Your task to perform on an android device: empty trash in google photos Image 0: 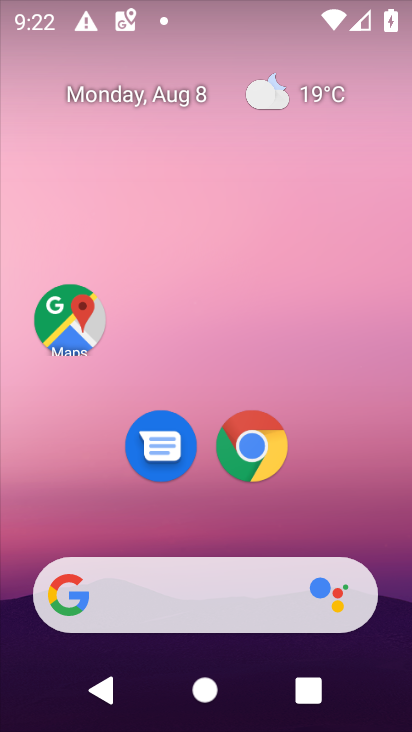
Step 0: drag from (397, 538) to (372, 78)
Your task to perform on an android device: empty trash in google photos Image 1: 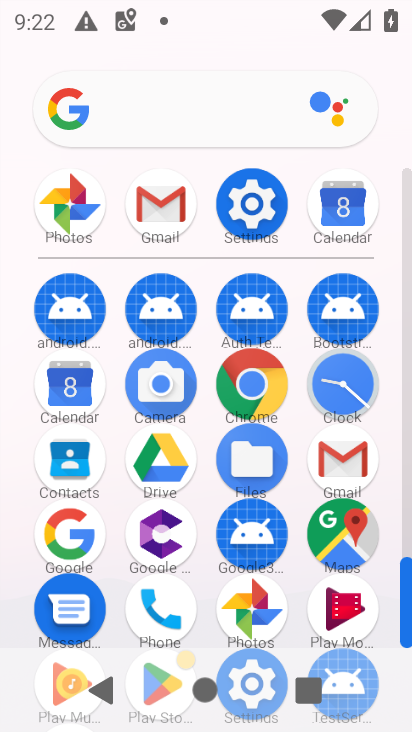
Step 1: click (254, 611)
Your task to perform on an android device: empty trash in google photos Image 2: 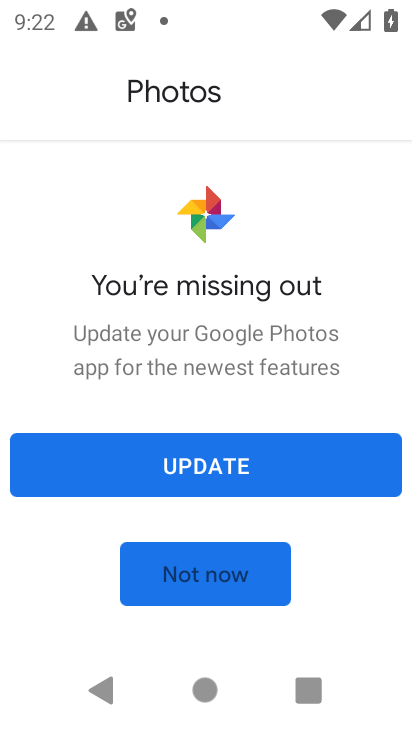
Step 2: click (203, 477)
Your task to perform on an android device: empty trash in google photos Image 3: 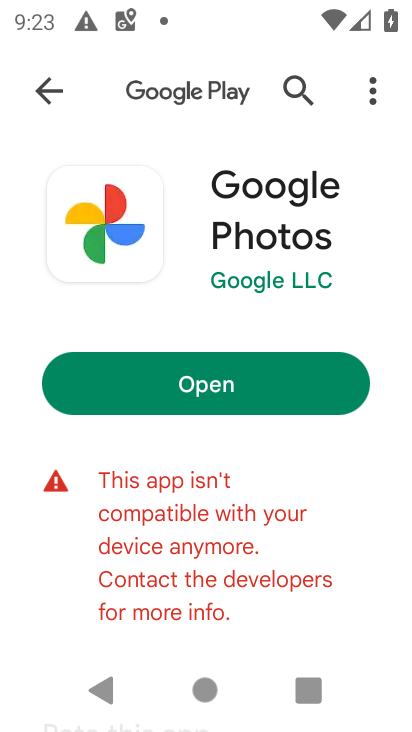
Step 3: press back button
Your task to perform on an android device: empty trash in google photos Image 4: 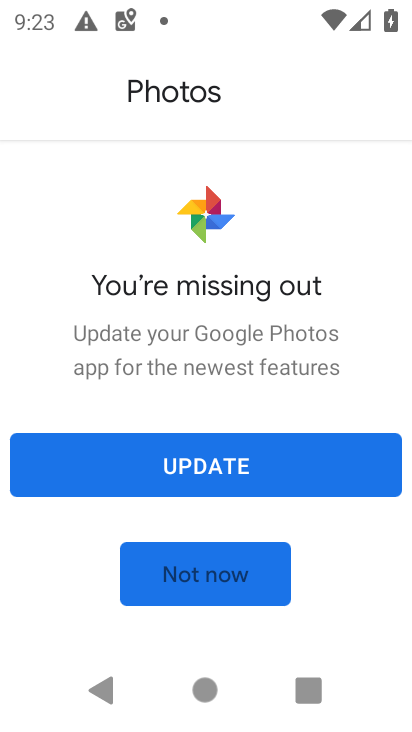
Step 4: click (192, 471)
Your task to perform on an android device: empty trash in google photos Image 5: 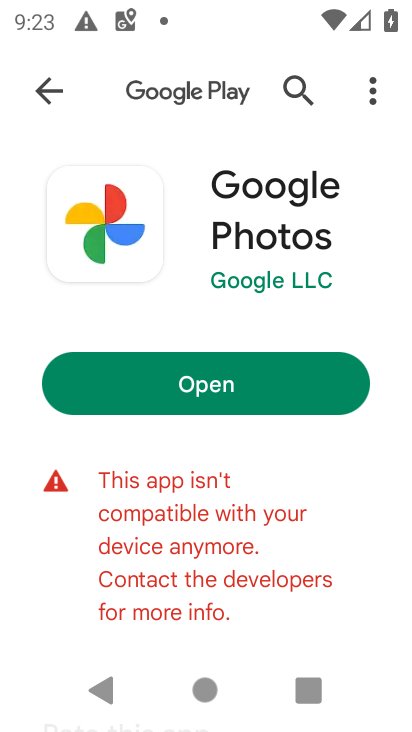
Step 5: click (218, 392)
Your task to perform on an android device: empty trash in google photos Image 6: 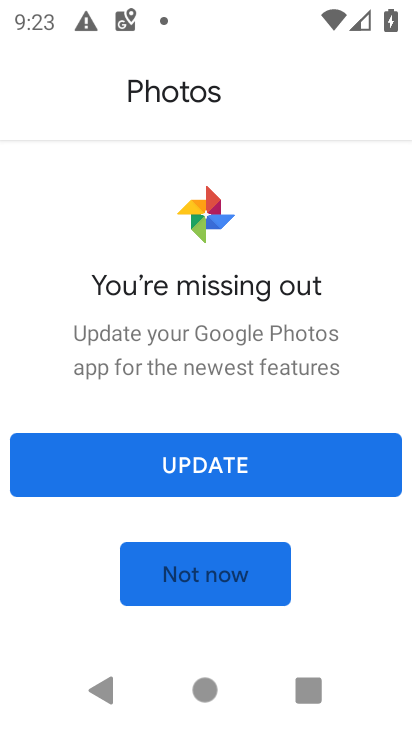
Step 6: task complete